Your task to perform on an android device: Go to Amazon Image 0: 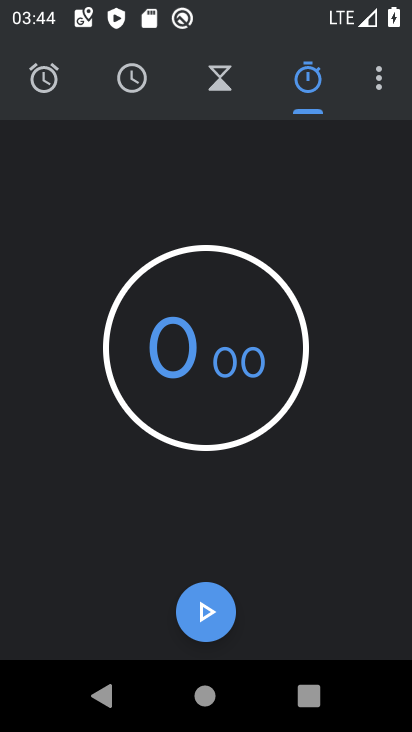
Step 0: press home button
Your task to perform on an android device: Go to Amazon Image 1: 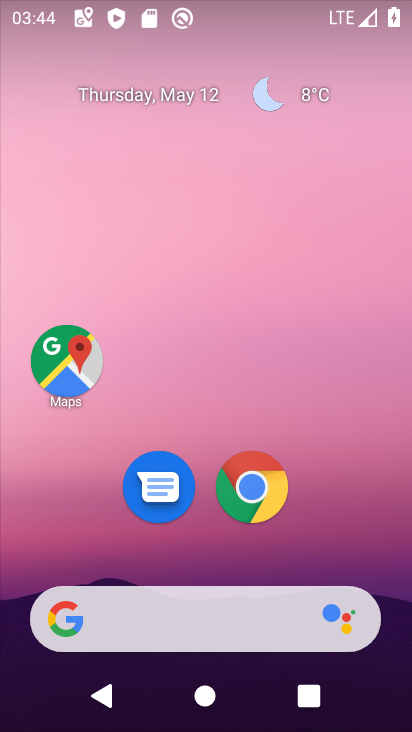
Step 1: drag from (289, 318) to (289, 73)
Your task to perform on an android device: Go to Amazon Image 2: 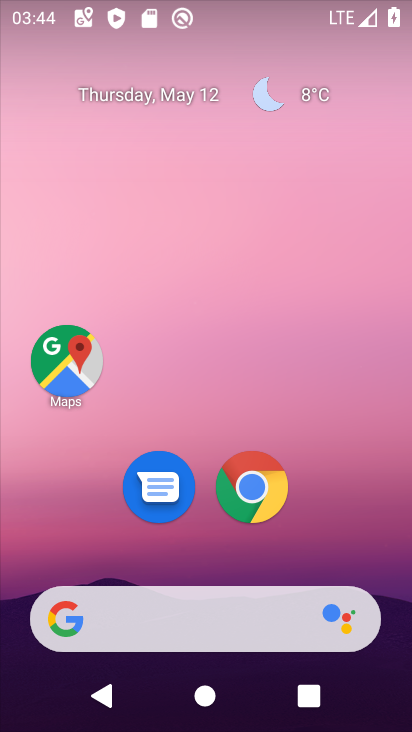
Step 2: click (257, 491)
Your task to perform on an android device: Go to Amazon Image 3: 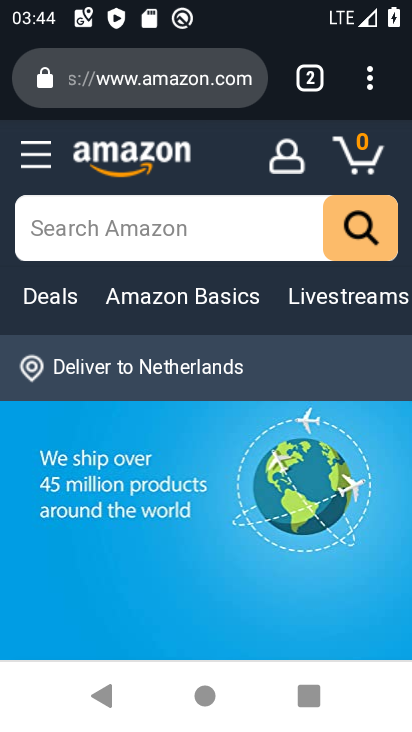
Step 3: task complete